Your task to perform on an android device: check android version Image 0: 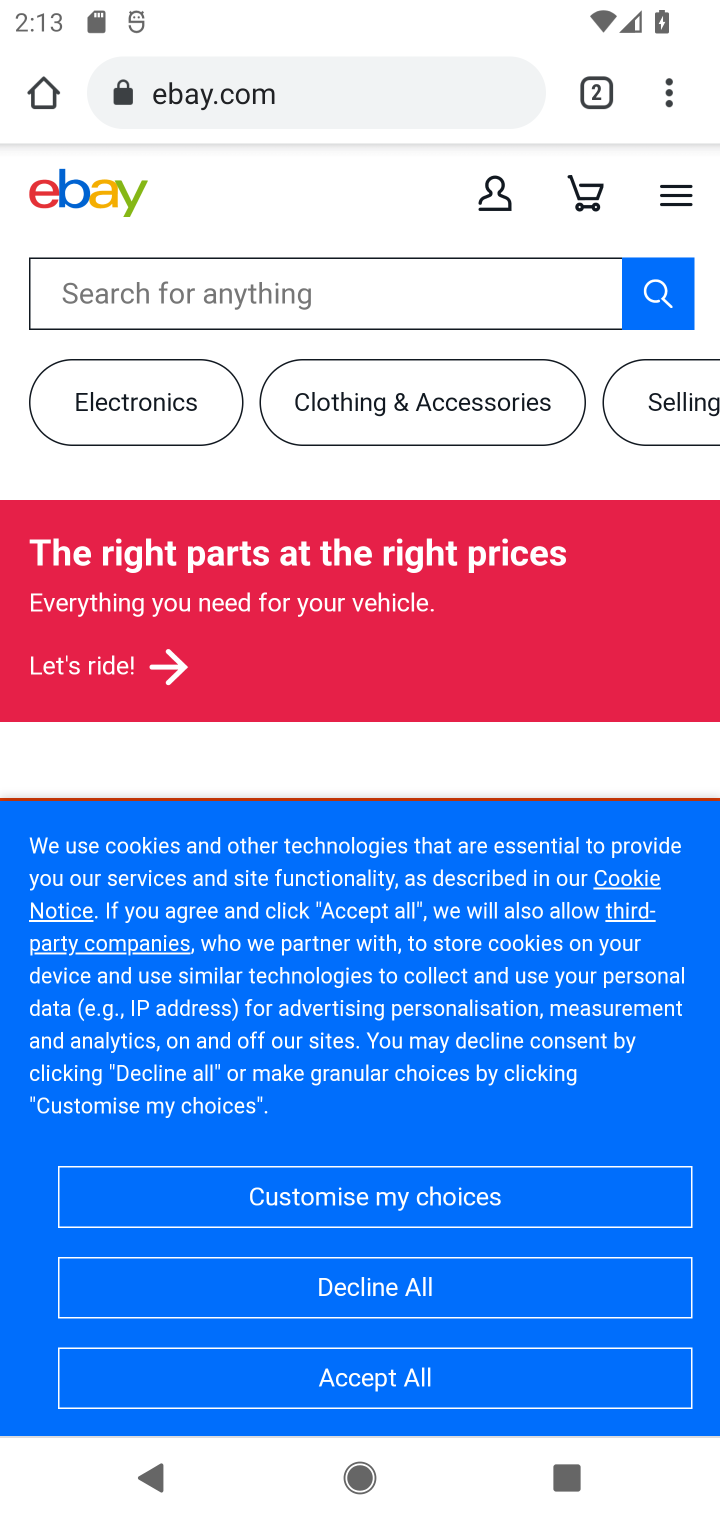
Step 0: press home button
Your task to perform on an android device: check android version Image 1: 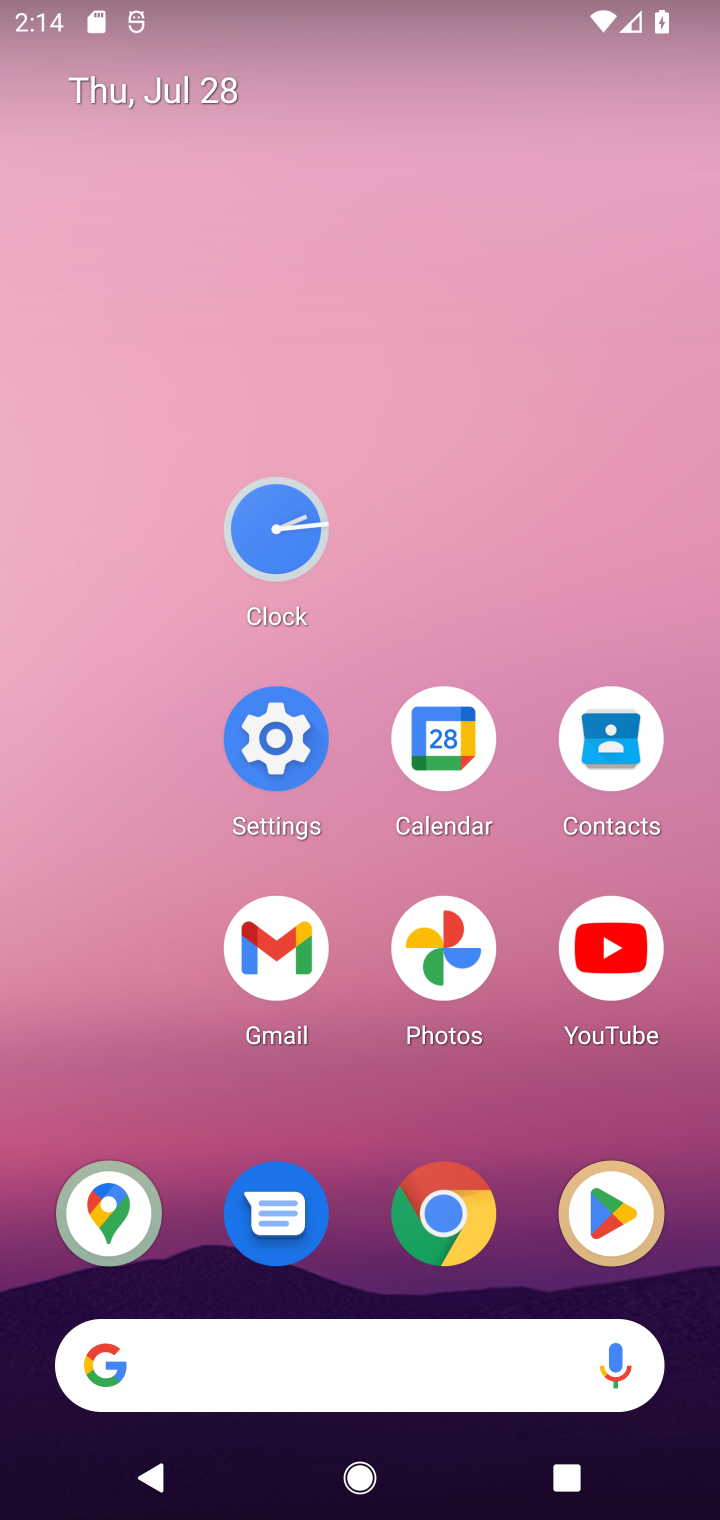
Step 1: click (260, 727)
Your task to perform on an android device: check android version Image 2: 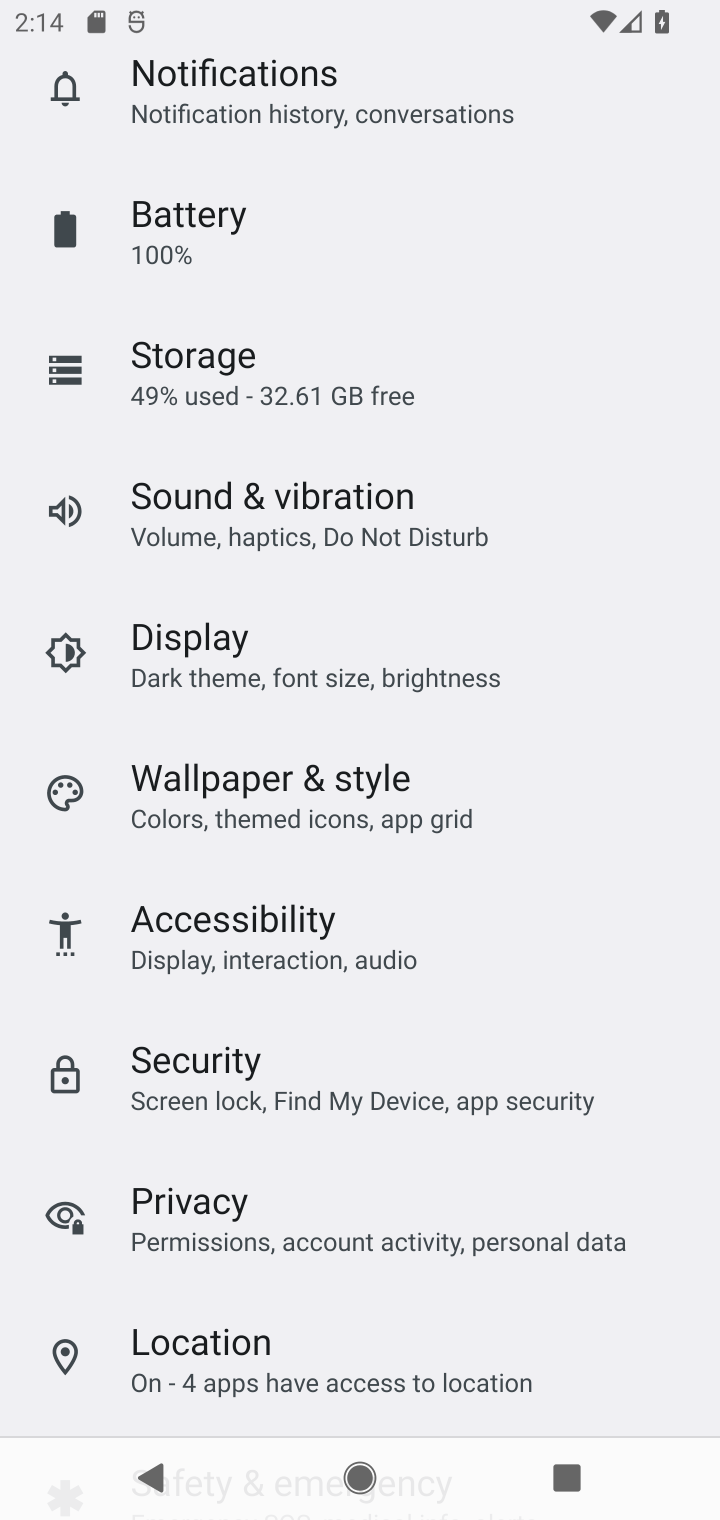
Step 2: drag from (413, 1279) to (447, 216)
Your task to perform on an android device: check android version Image 3: 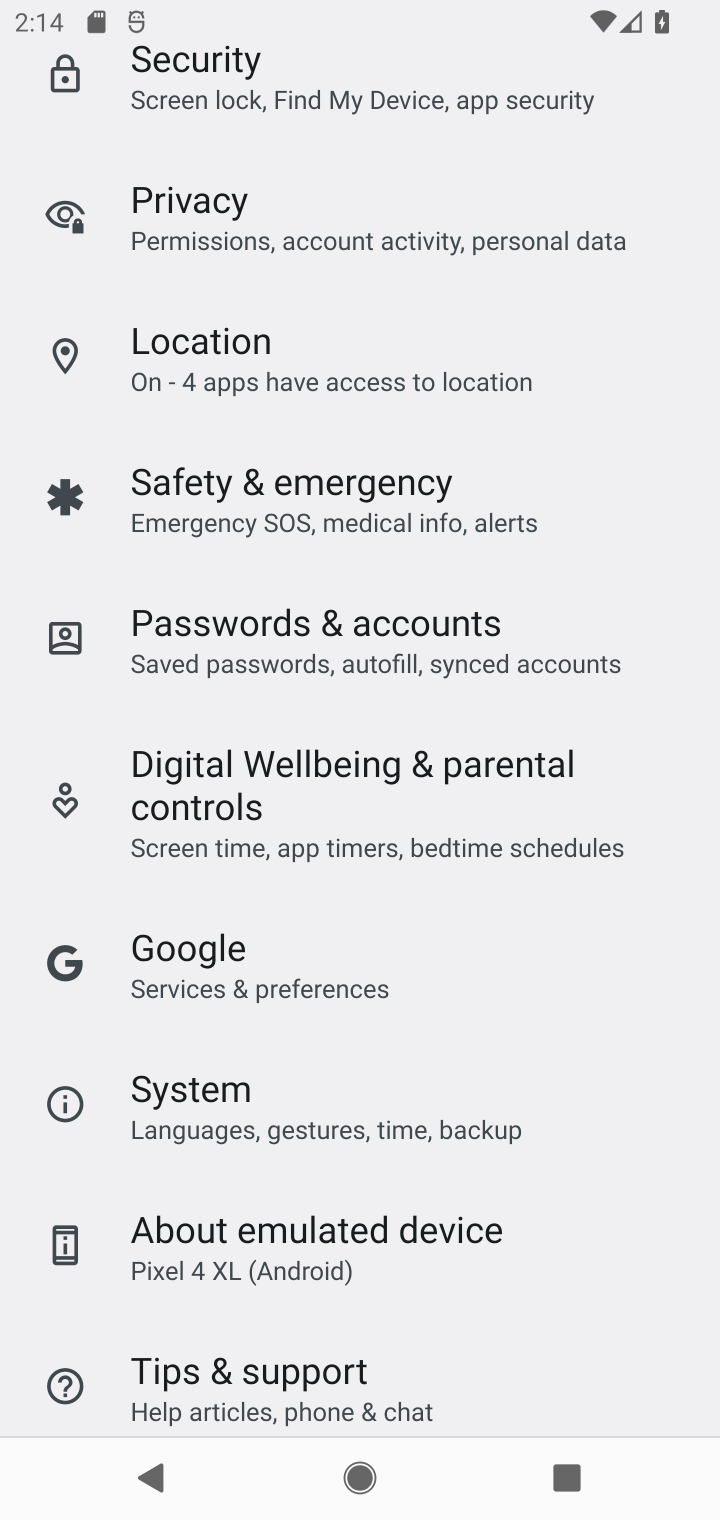
Step 3: drag from (481, 1288) to (438, 445)
Your task to perform on an android device: check android version Image 4: 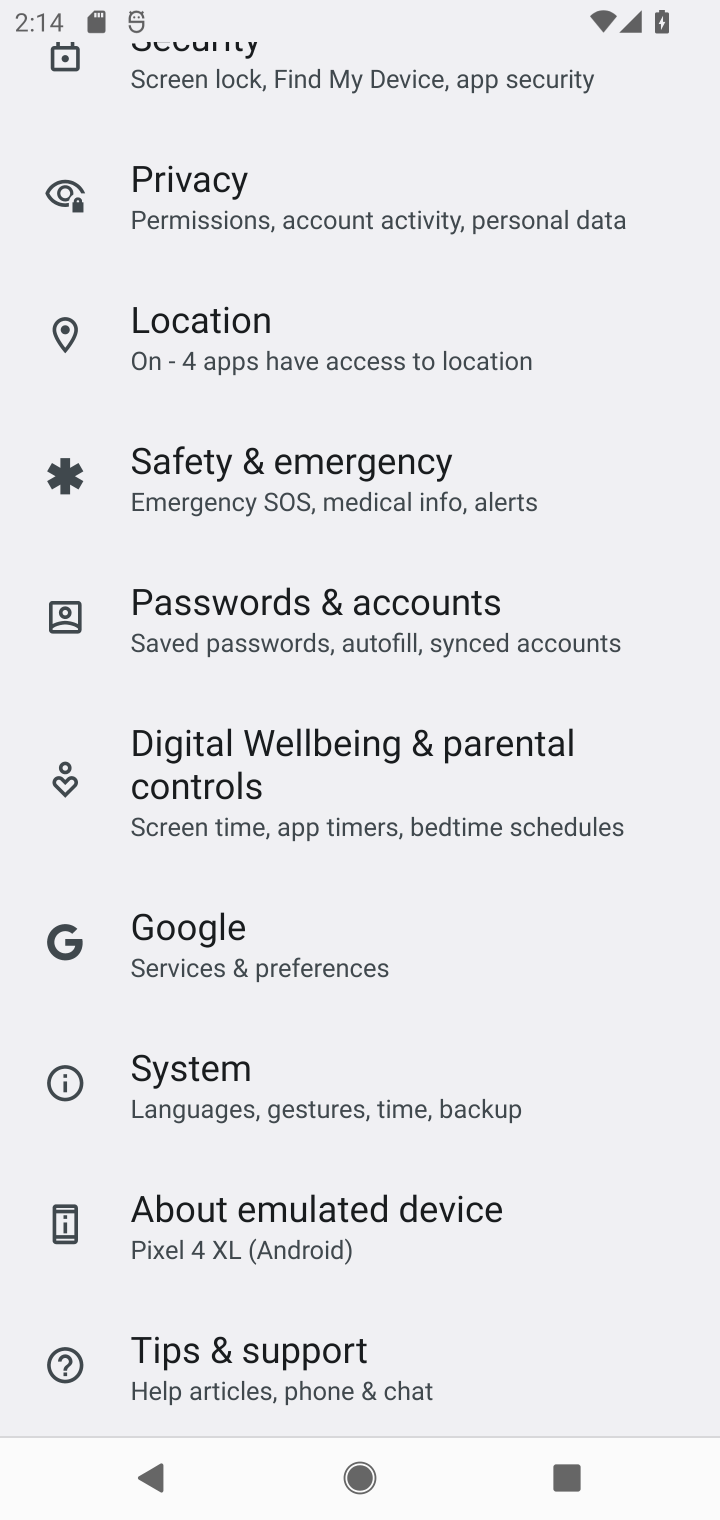
Step 4: drag from (579, 1279) to (537, 557)
Your task to perform on an android device: check android version Image 5: 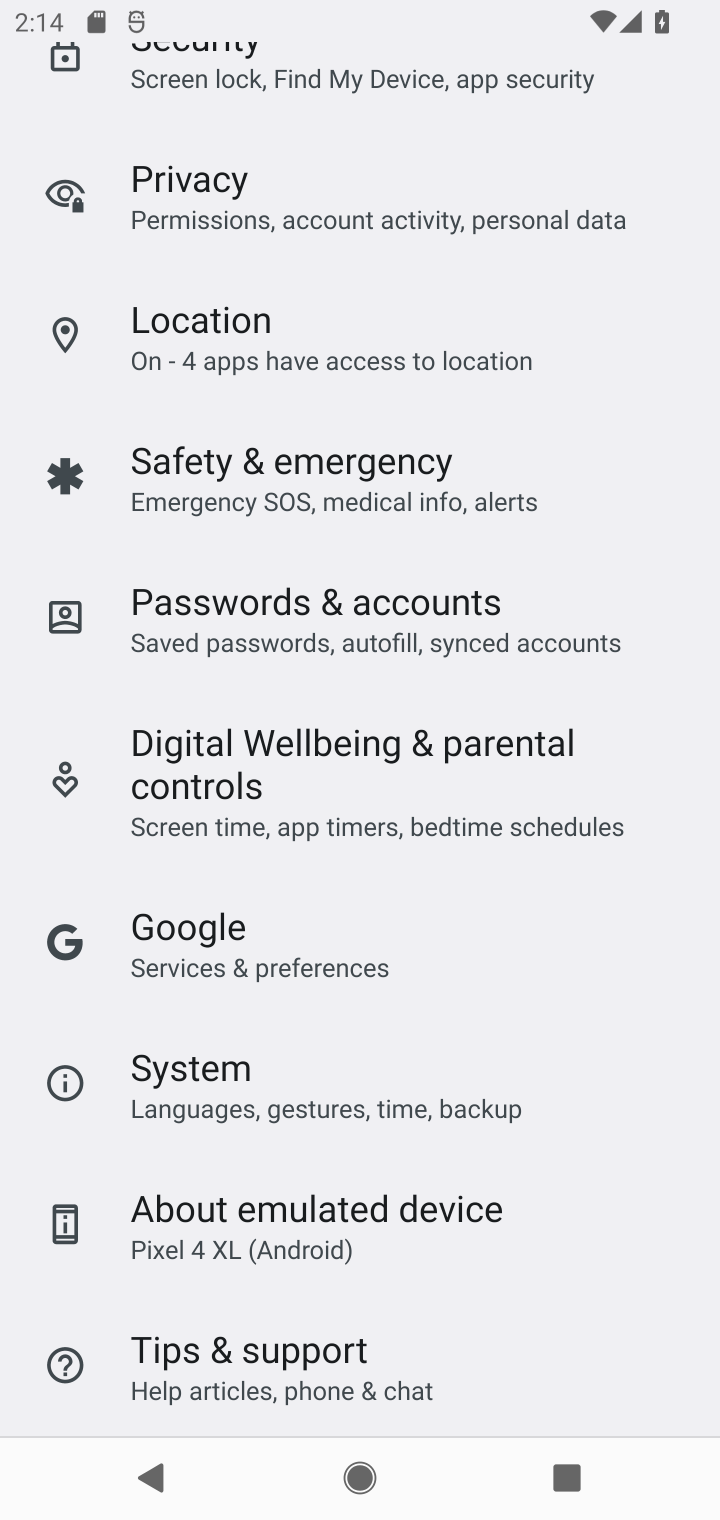
Step 5: click (280, 1205)
Your task to perform on an android device: check android version Image 6: 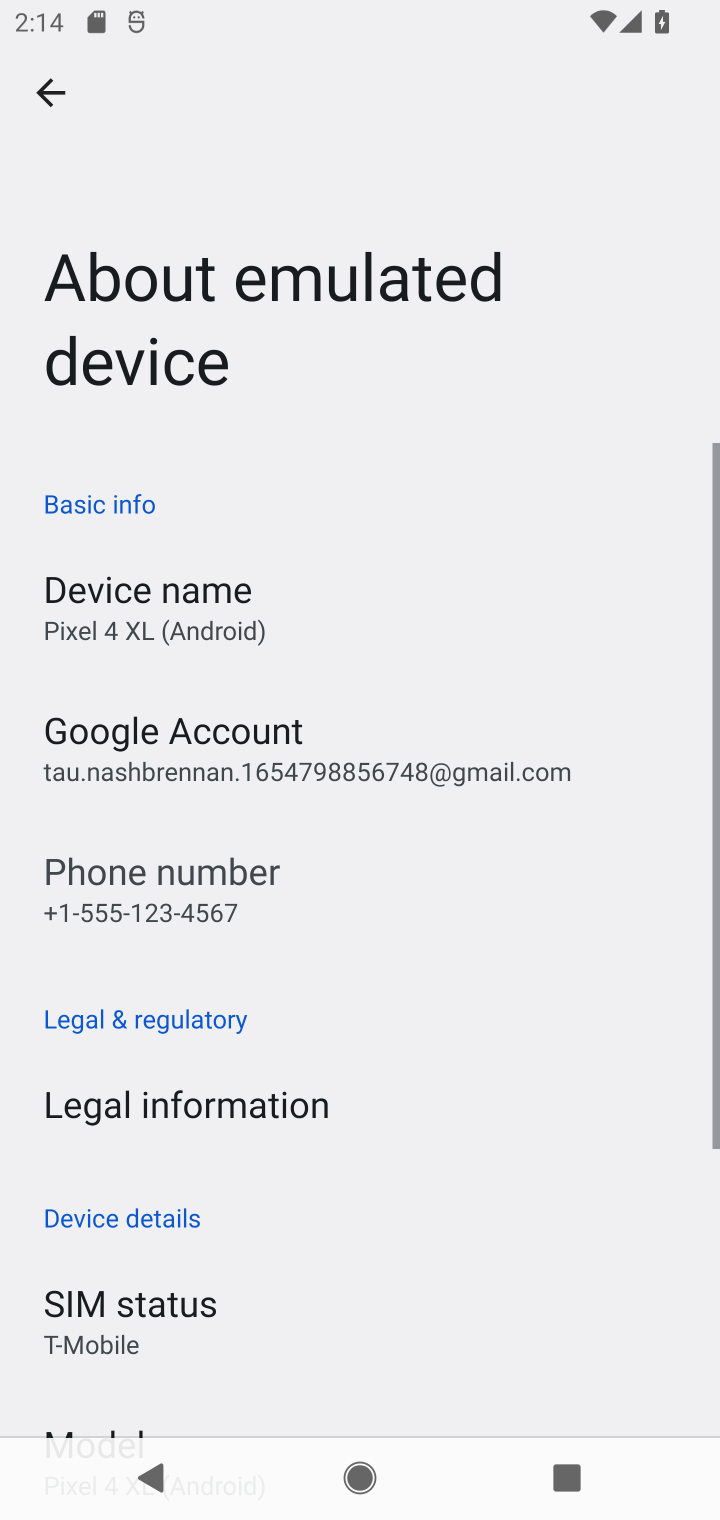
Step 6: task complete